Your task to perform on an android device: star an email in the gmail app Image 0: 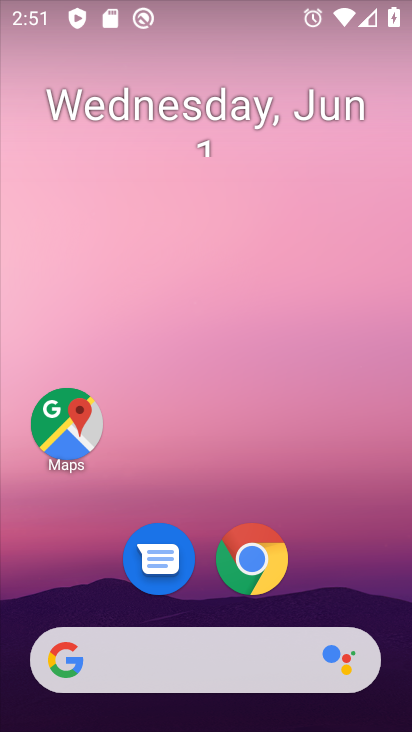
Step 0: drag from (331, 580) to (407, 166)
Your task to perform on an android device: star an email in the gmail app Image 1: 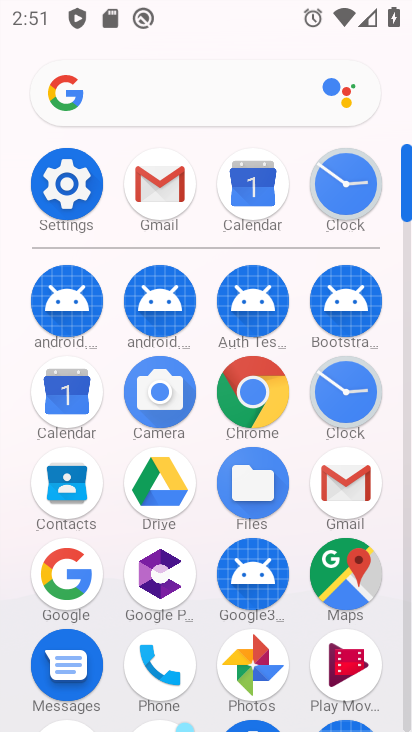
Step 1: click (146, 199)
Your task to perform on an android device: star an email in the gmail app Image 2: 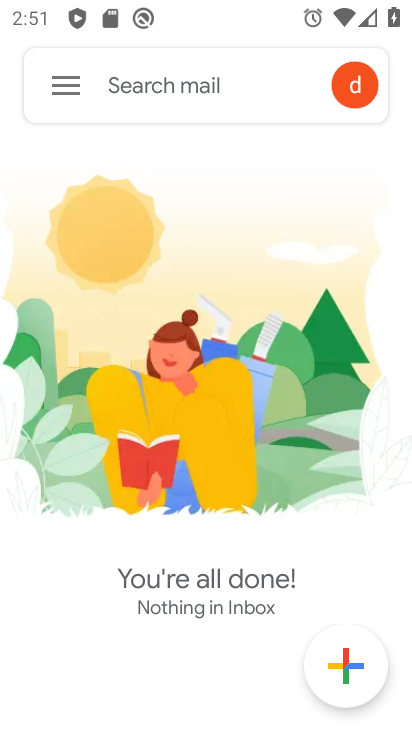
Step 2: click (78, 83)
Your task to perform on an android device: star an email in the gmail app Image 3: 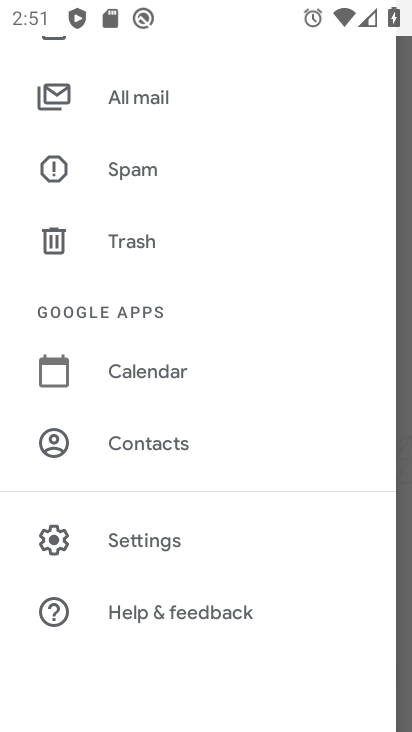
Step 3: click (137, 101)
Your task to perform on an android device: star an email in the gmail app Image 4: 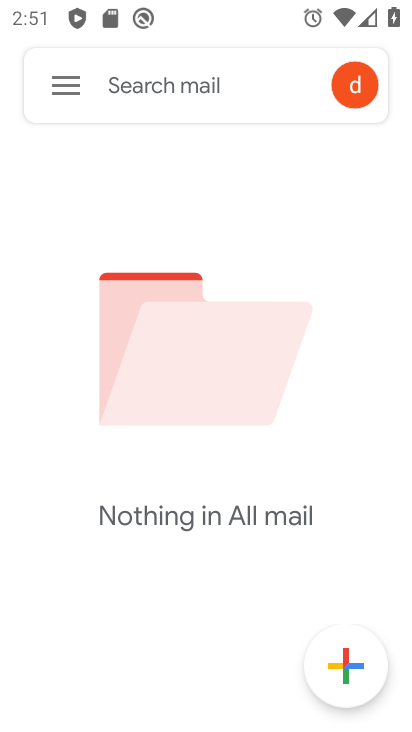
Step 4: task complete